Your task to perform on an android device: open wifi settings Image 0: 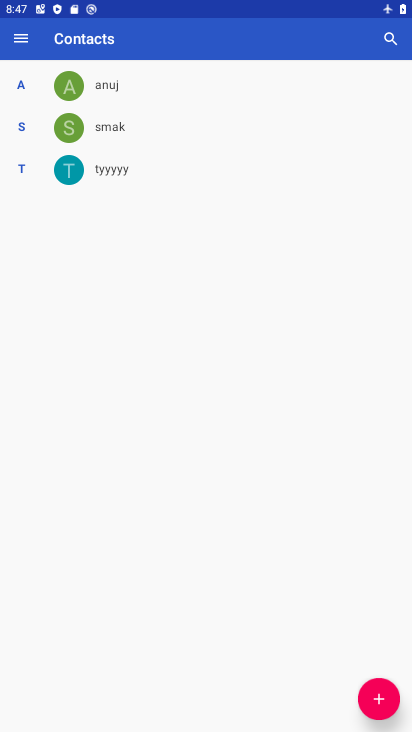
Step 0: press home button
Your task to perform on an android device: open wifi settings Image 1: 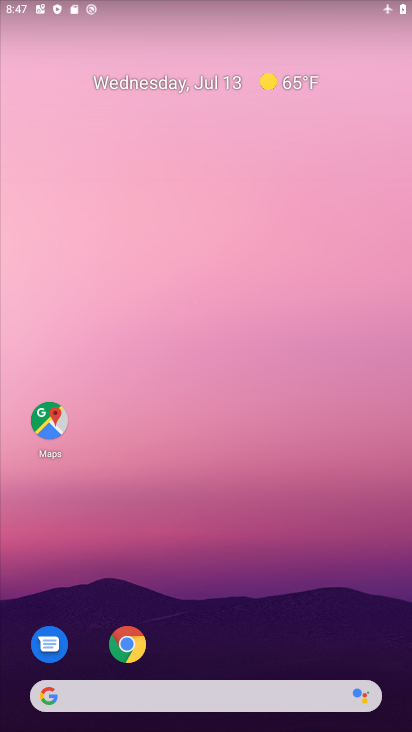
Step 1: drag from (403, 645) to (367, 21)
Your task to perform on an android device: open wifi settings Image 2: 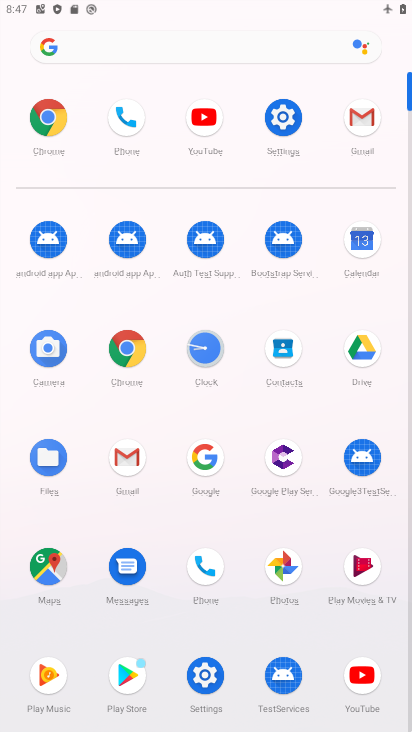
Step 2: click (291, 118)
Your task to perform on an android device: open wifi settings Image 3: 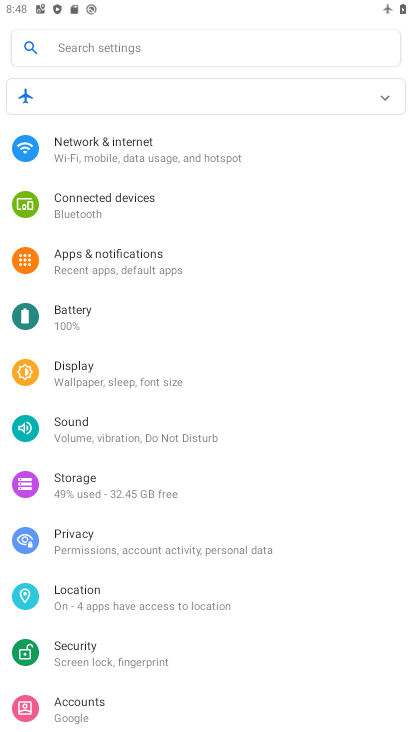
Step 3: click (163, 142)
Your task to perform on an android device: open wifi settings Image 4: 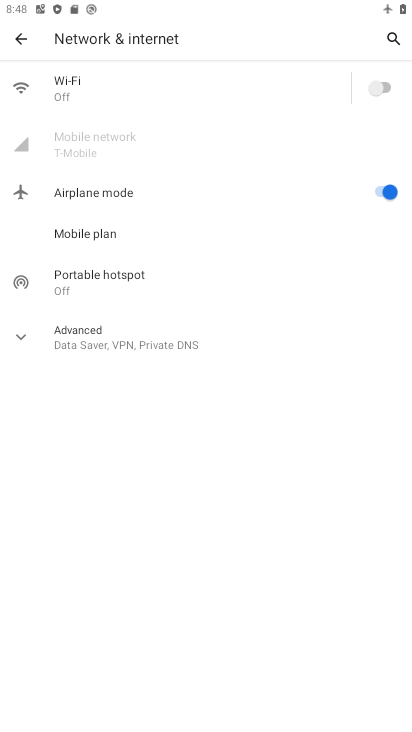
Step 4: click (92, 84)
Your task to perform on an android device: open wifi settings Image 5: 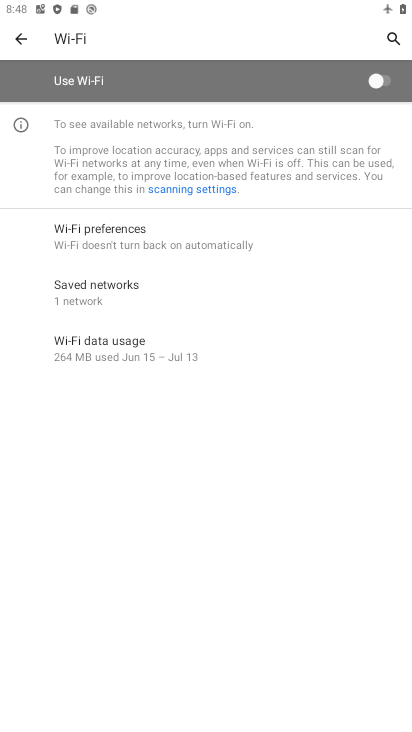
Step 5: task complete